Your task to perform on an android device: check the backup settings in the google photos Image 0: 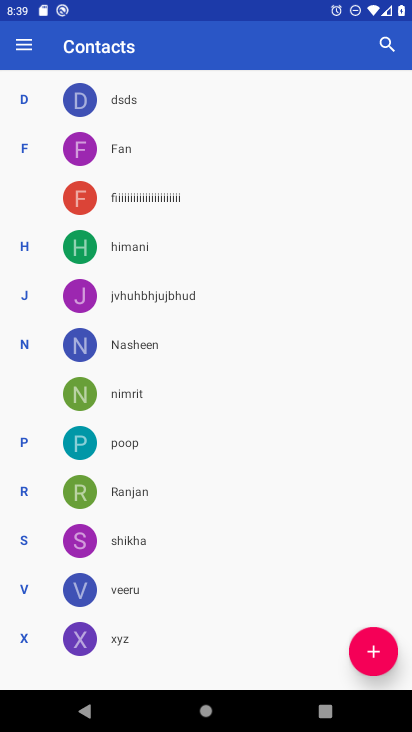
Step 0: press home button
Your task to perform on an android device: check the backup settings in the google photos Image 1: 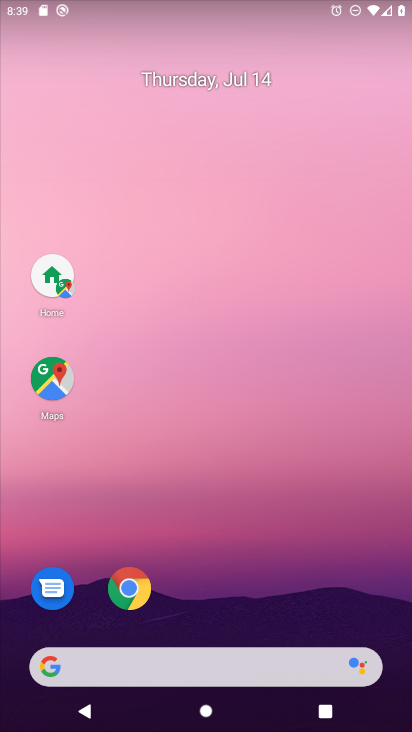
Step 1: drag from (18, 709) to (369, 511)
Your task to perform on an android device: check the backup settings in the google photos Image 2: 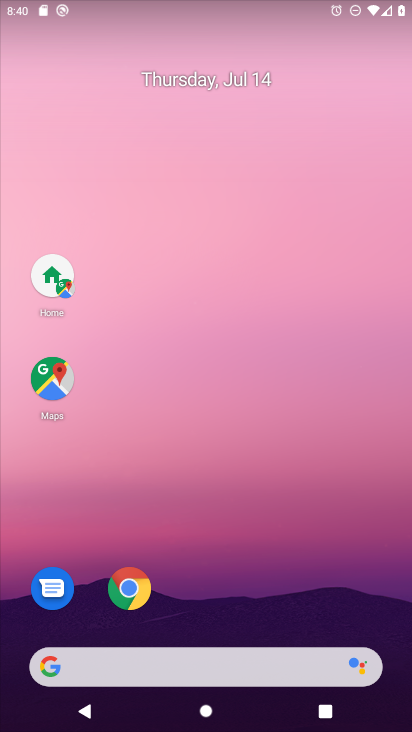
Step 2: drag from (22, 700) to (206, 139)
Your task to perform on an android device: check the backup settings in the google photos Image 3: 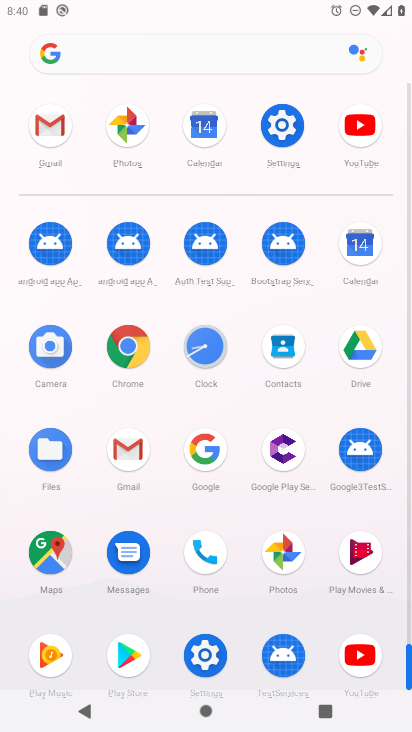
Step 3: click (274, 556)
Your task to perform on an android device: check the backup settings in the google photos Image 4: 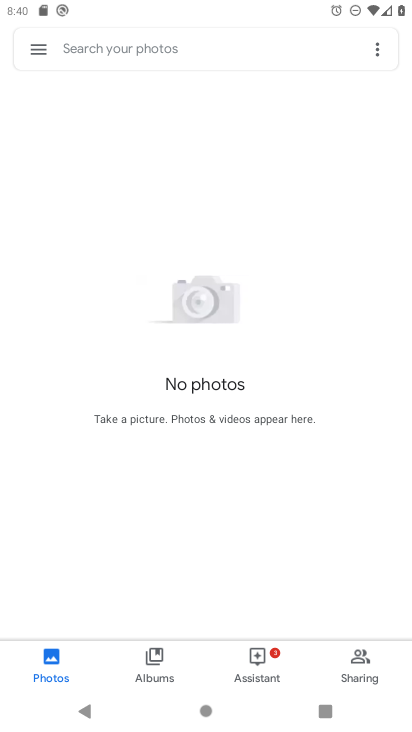
Step 4: click (44, 45)
Your task to perform on an android device: check the backup settings in the google photos Image 5: 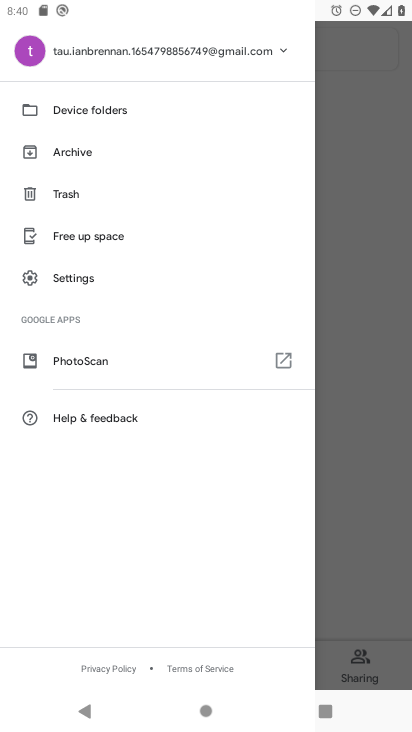
Step 5: click (84, 277)
Your task to perform on an android device: check the backup settings in the google photos Image 6: 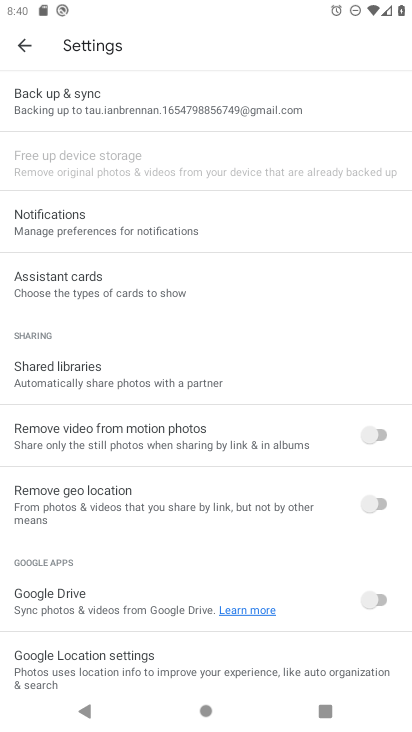
Step 6: click (123, 90)
Your task to perform on an android device: check the backup settings in the google photos Image 7: 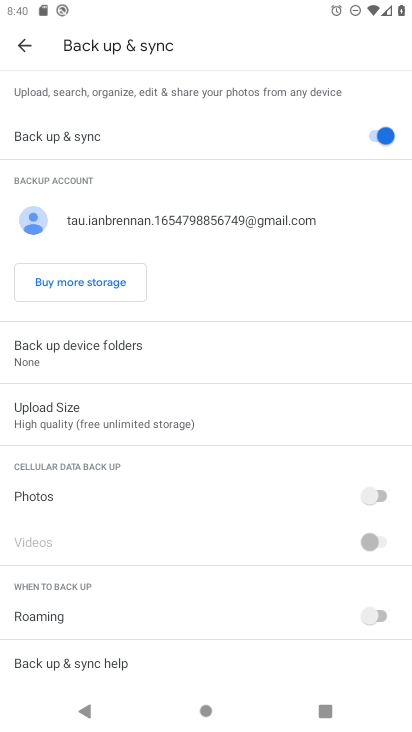
Step 7: task complete